Your task to perform on an android device: Go to location settings Image 0: 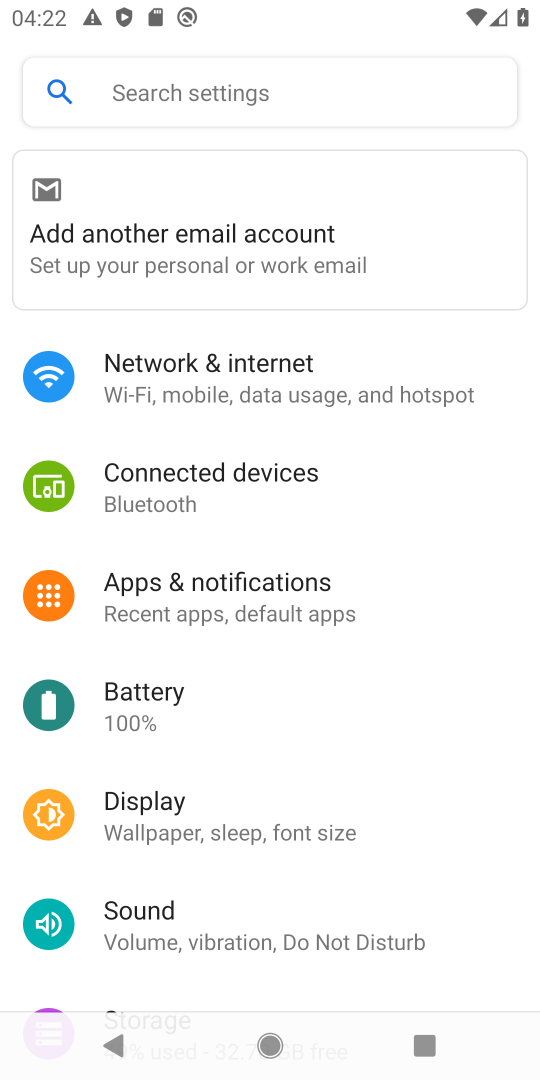
Step 0: drag from (249, 921) to (268, 400)
Your task to perform on an android device: Go to location settings Image 1: 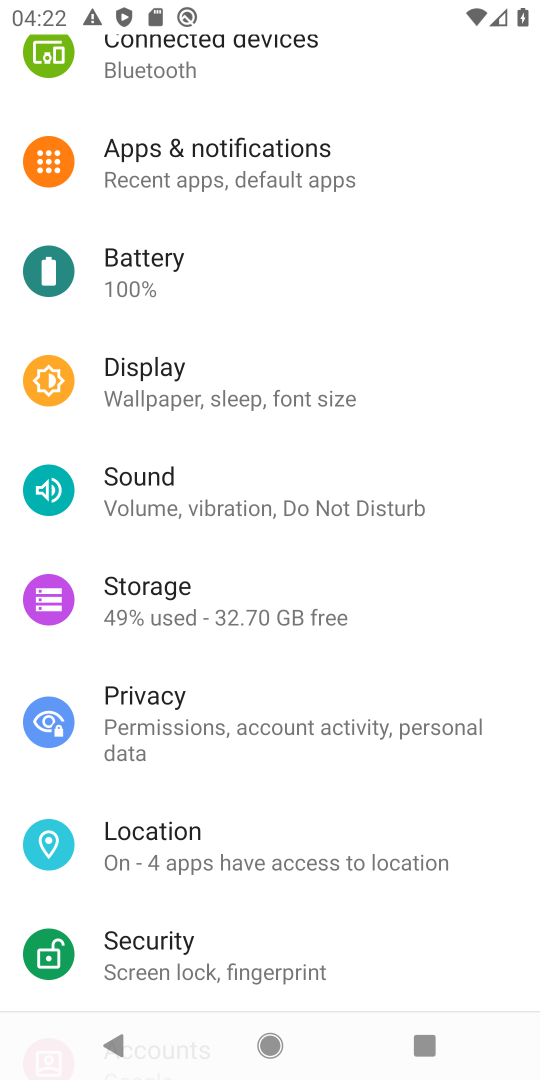
Step 1: click (168, 841)
Your task to perform on an android device: Go to location settings Image 2: 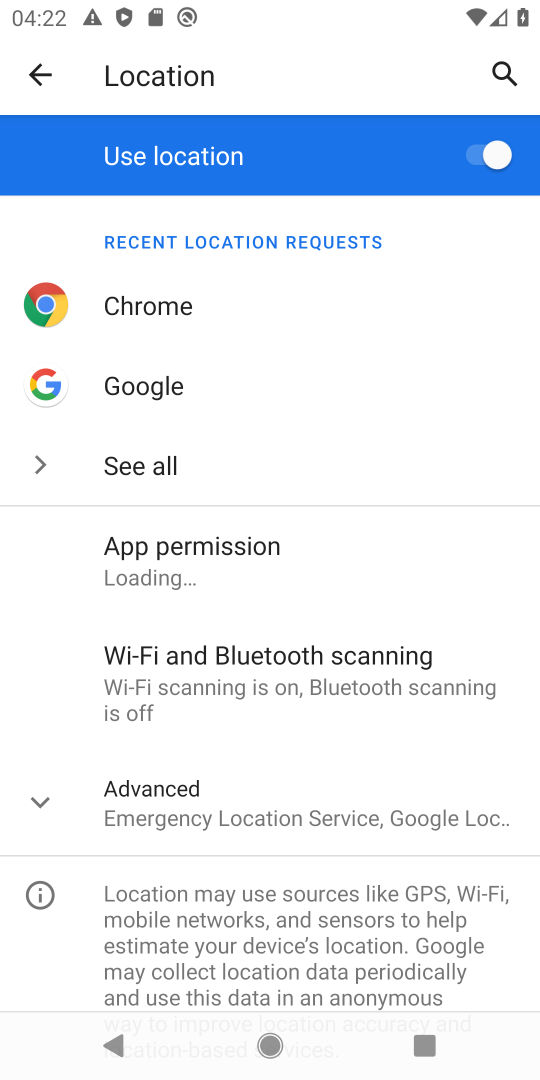
Step 2: task complete